Your task to perform on an android device: star an email in the gmail app Image 0: 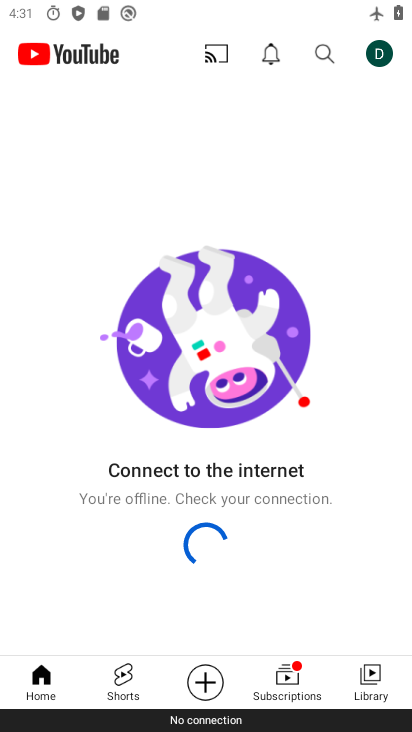
Step 0: press home button
Your task to perform on an android device: star an email in the gmail app Image 1: 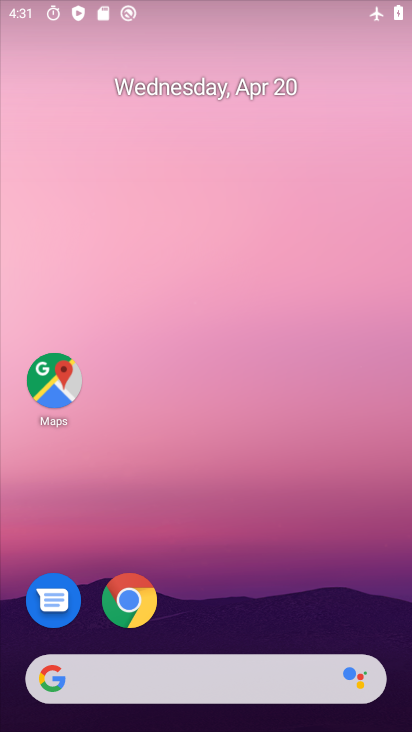
Step 1: drag from (225, 585) to (274, 98)
Your task to perform on an android device: star an email in the gmail app Image 2: 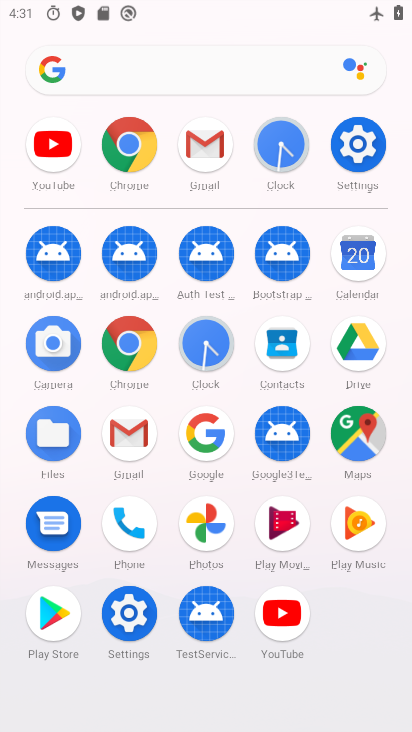
Step 2: click (204, 146)
Your task to perform on an android device: star an email in the gmail app Image 3: 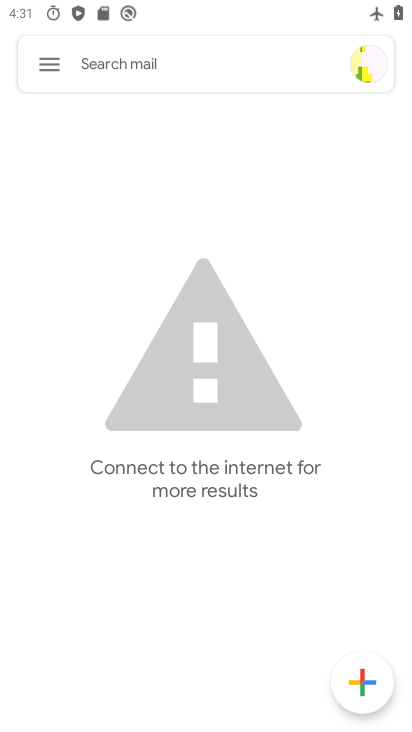
Step 3: task complete